Your task to perform on an android device: open the mobile data screen to see how much data has been used Image 0: 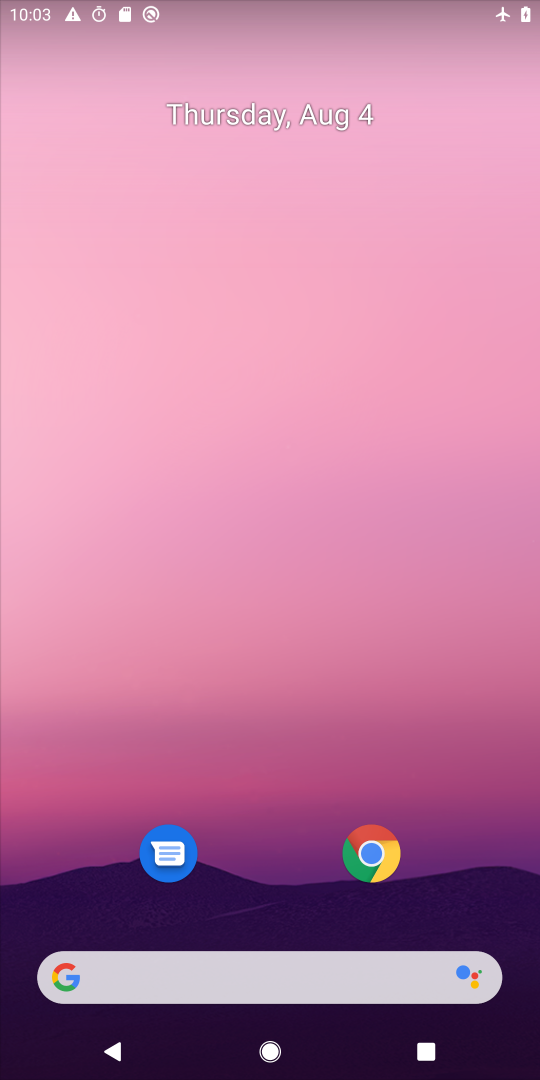
Step 0: drag from (243, 864) to (315, 138)
Your task to perform on an android device: open the mobile data screen to see how much data has been used Image 1: 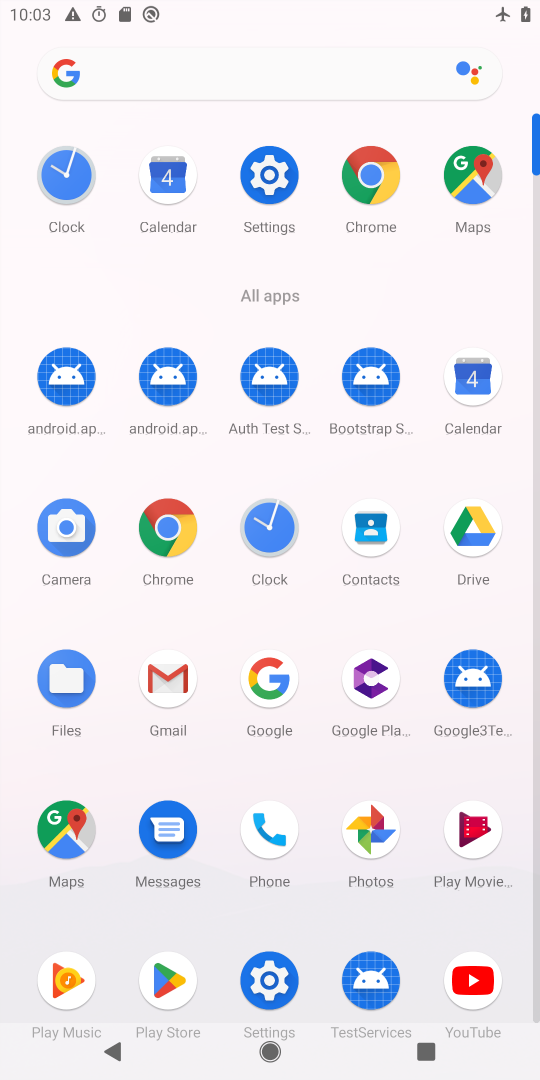
Step 1: click (267, 178)
Your task to perform on an android device: open the mobile data screen to see how much data has been used Image 2: 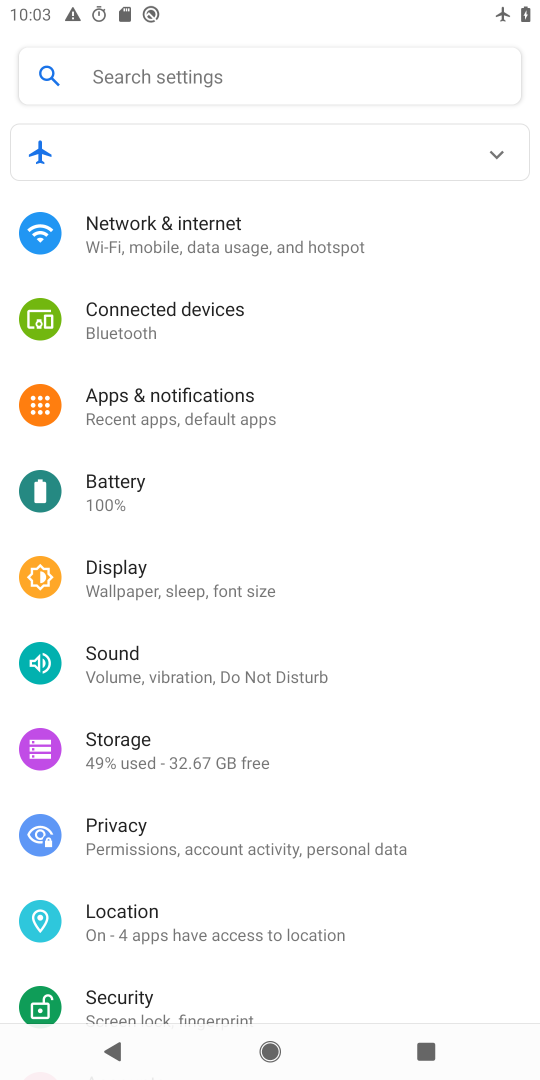
Step 2: click (202, 231)
Your task to perform on an android device: open the mobile data screen to see how much data has been used Image 3: 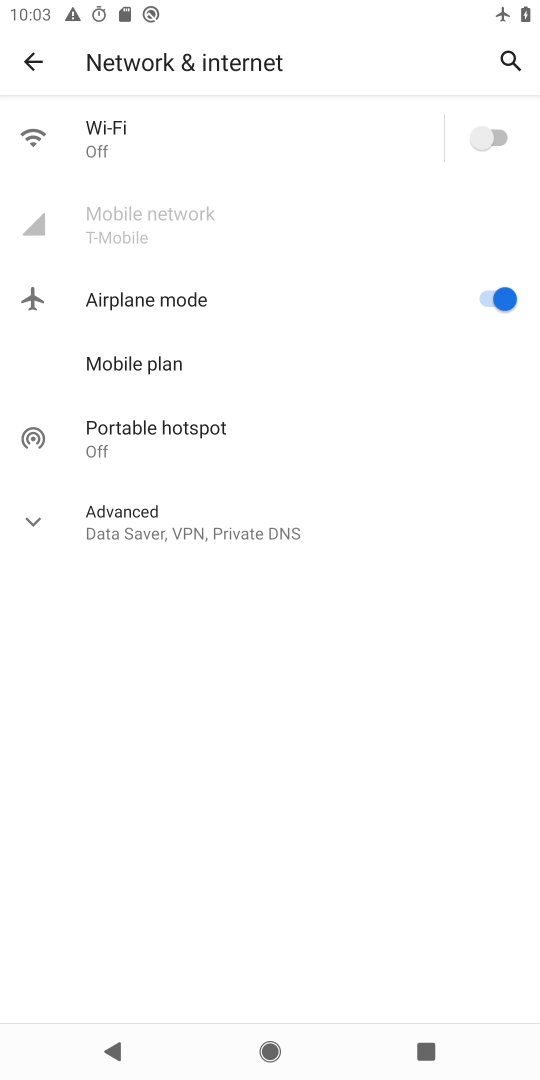
Step 3: click (440, 289)
Your task to perform on an android device: open the mobile data screen to see how much data has been used Image 4: 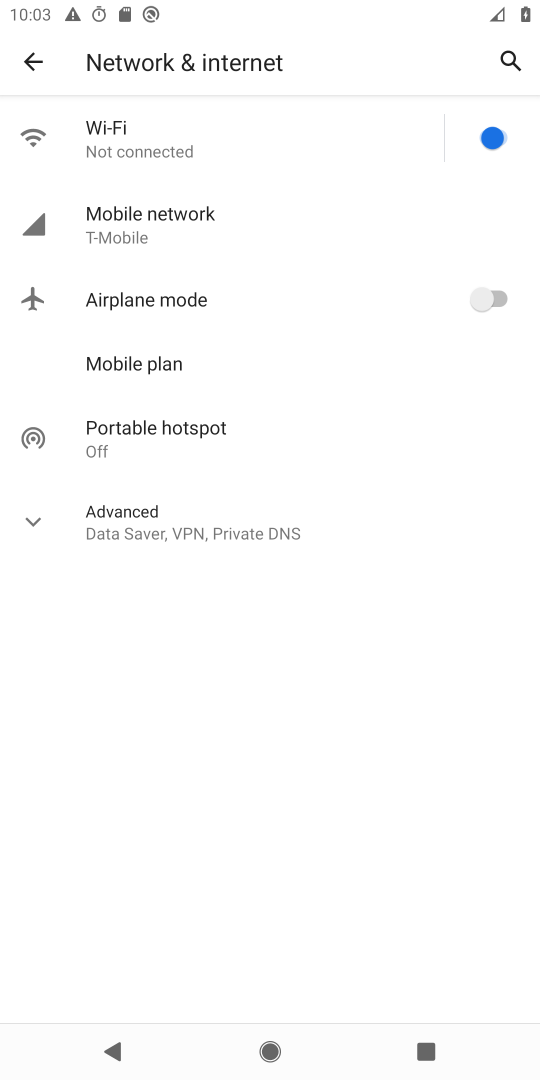
Step 4: click (185, 227)
Your task to perform on an android device: open the mobile data screen to see how much data has been used Image 5: 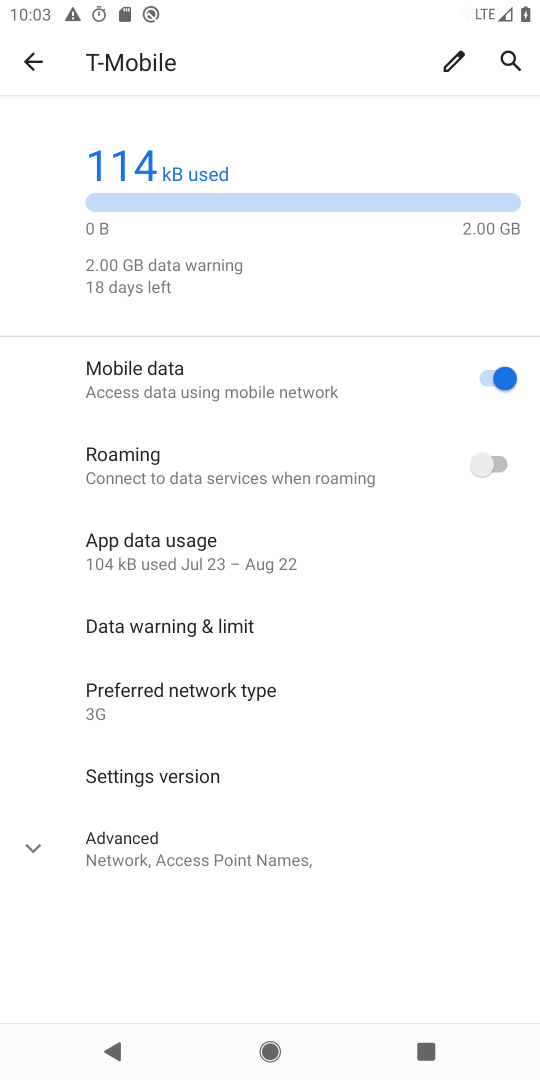
Step 5: click (202, 558)
Your task to perform on an android device: open the mobile data screen to see how much data has been used Image 6: 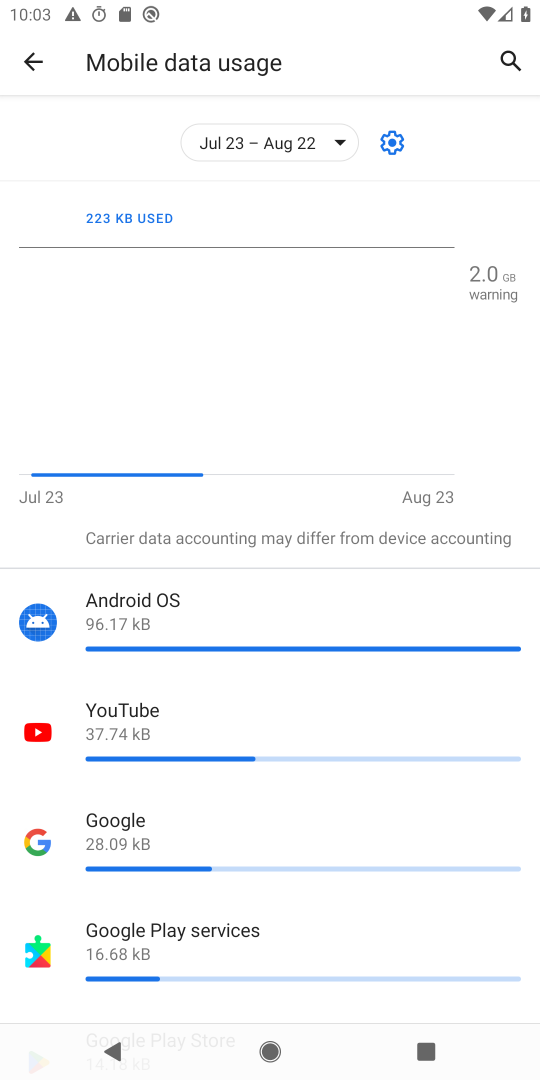
Step 6: task complete